Your task to perform on an android device: Toggle the flashlight Image 0: 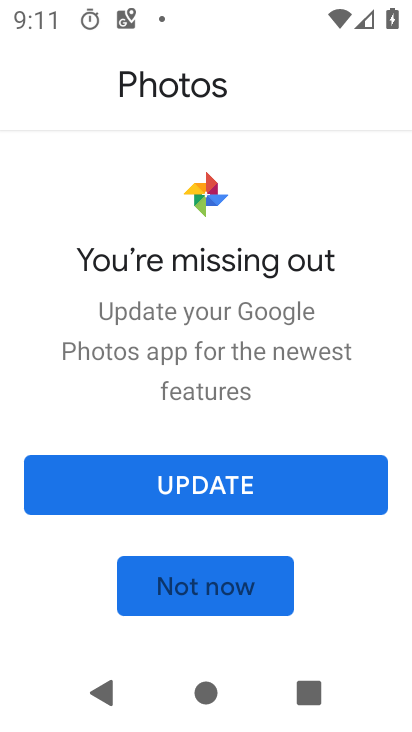
Step 0: press home button
Your task to perform on an android device: Toggle the flashlight Image 1: 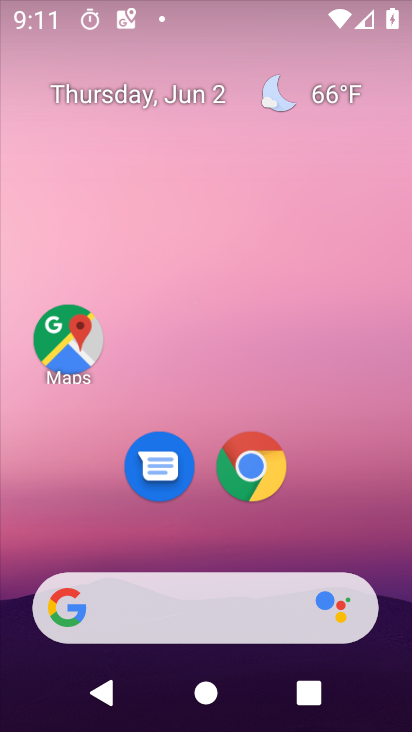
Step 1: drag from (37, 572) to (320, 97)
Your task to perform on an android device: Toggle the flashlight Image 2: 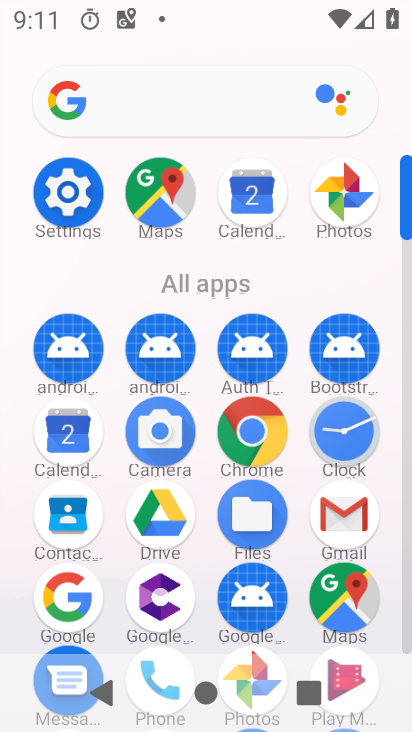
Step 2: click (89, 209)
Your task to perform on an android device: Toggle the flashlight Image 3: 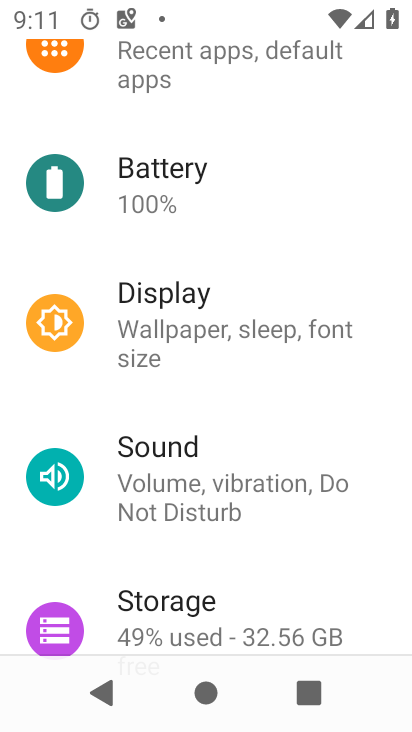
Step 3: click (185, 334)
Your task to perform on an android device: Toggle the flashlight Image 4: 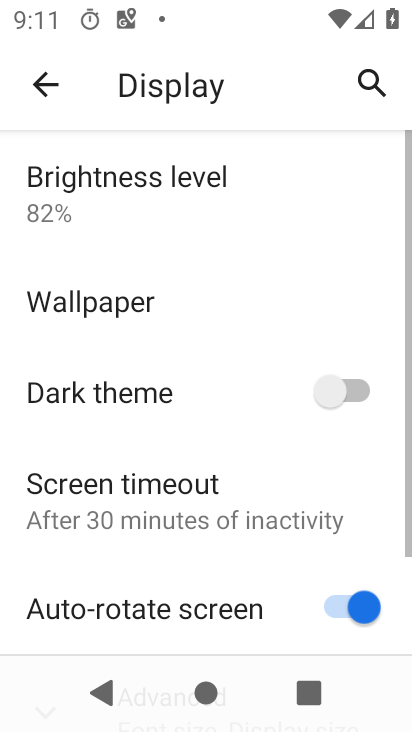
Step 4: task complete